Your task to perform on an android device: all mails in gmail Image 0: 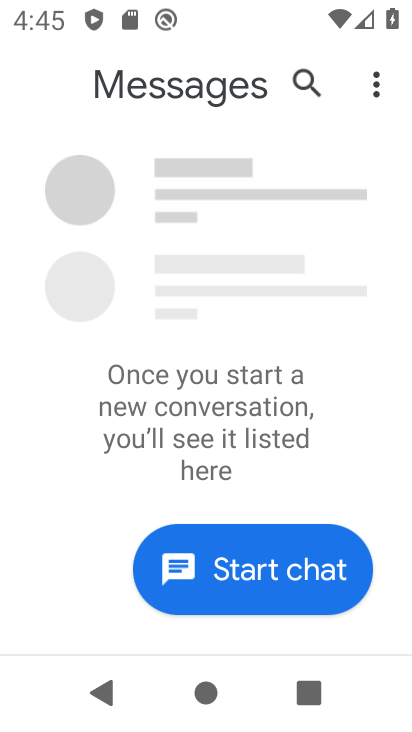
Step 0: press home button
Your task to perform on an android device: all mails in gmail Image 1: 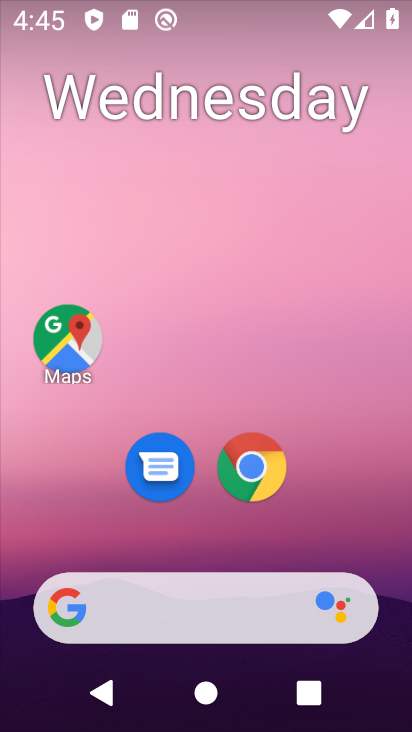
Step 1: drag from (172, 559) to (342, 150)
Your task to perform on an android device: all mails in gmail Image 2: 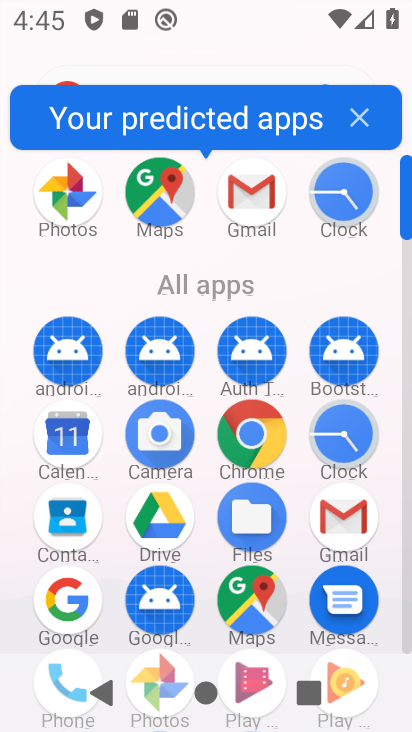
Step 2: click (348, 517)
Your task to perform on an android device: all mails in gmail Image 3: 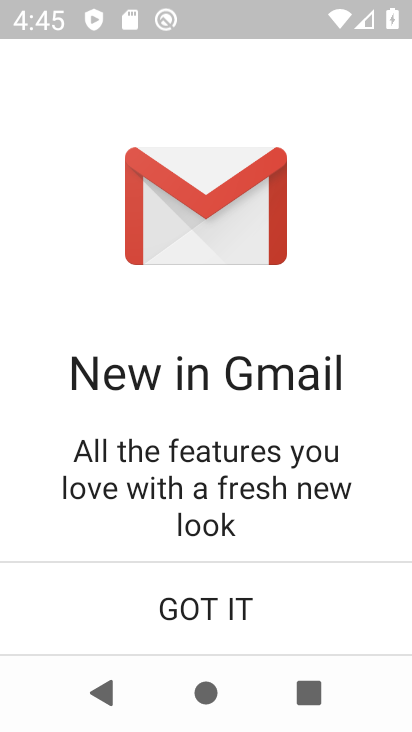
Step 3: click (290, 628)
Your task to perform on an android device: all mails in gmail Image 4: 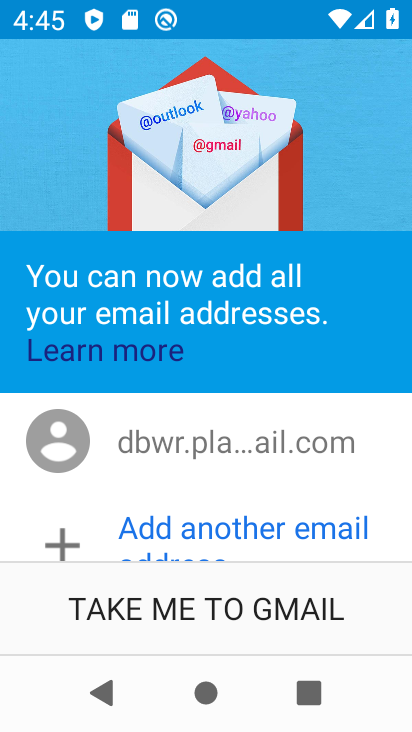
Step 4: click (243, 644)
Your task to perform on an android device: all mails in gmail Image 5: 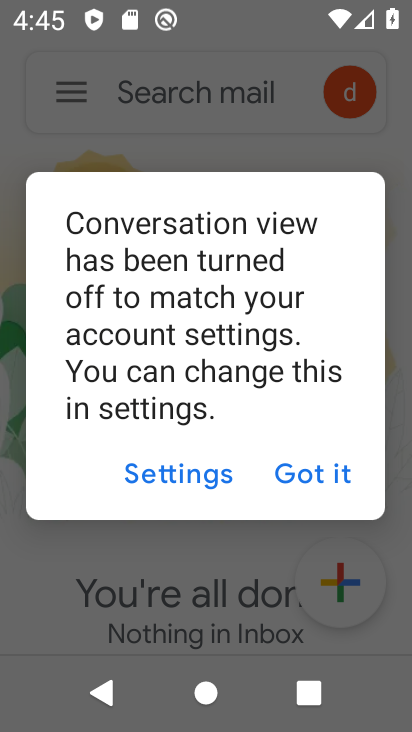
Step 5: click (307, 487)
Your task to perform on an android device: all mails in gmail Image 6: 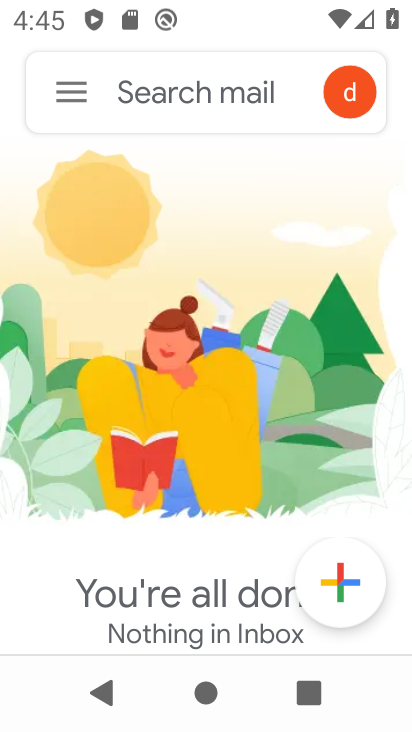
Step 6: click (82, 98)
Your task to perform on an android device: all mails in gmail Image 7: 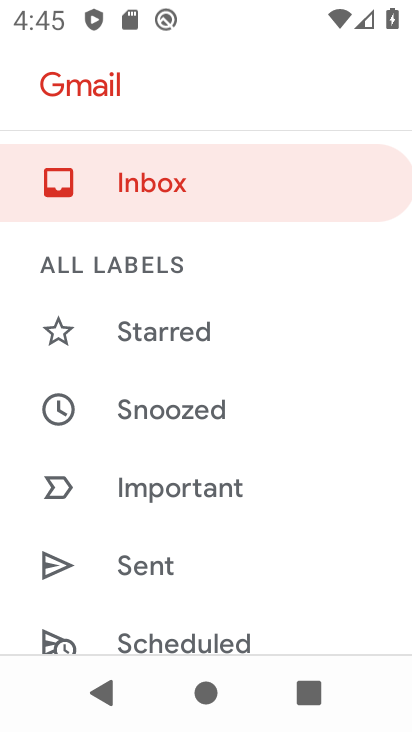
Step 7: drag from (208, 562) to (323, 287)
Your task to perform on an android device: all mails in gmail Image 8: 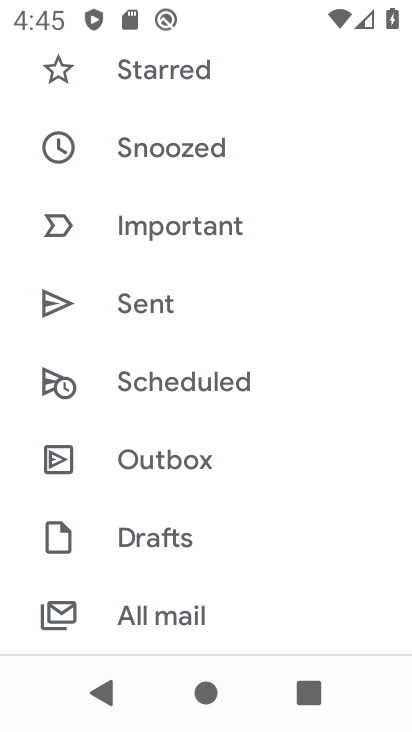
Step 8: click (202, 614)
Your task to perform on an android device: all mails in gmail Image 9: 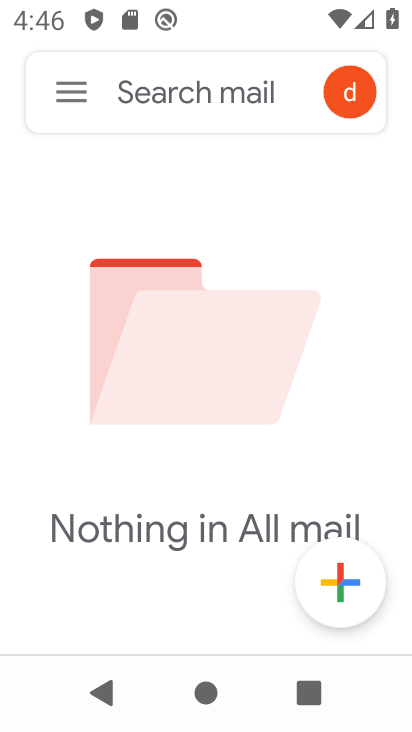
Step 9: task complete